Your task to perform on an android device: Do I have any events tomorrow? Image 0: 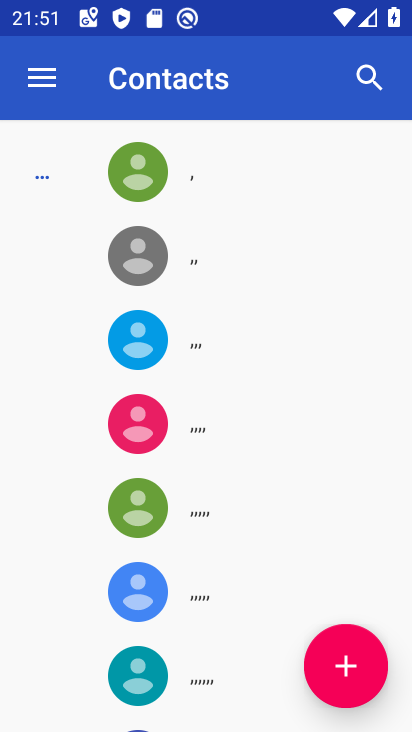
Step 0: press home button
Your task to perform on an android device: Do I have any events tomorrow? Image 1: 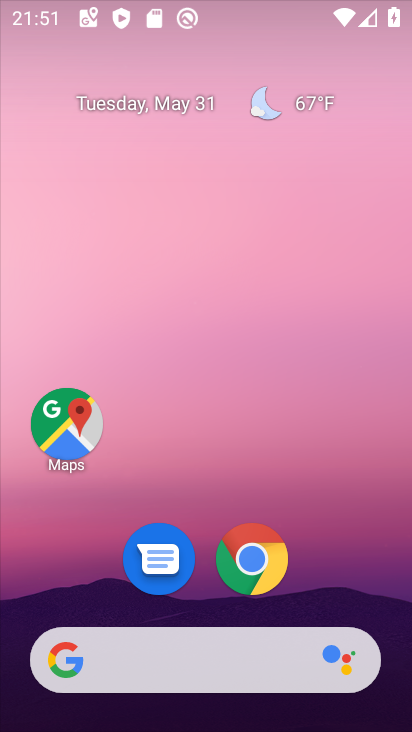
Step 1: drag from (331, 570) to (335, 114)
Your task to perform on an android device: Do I have any events tomorrow? Image 2: 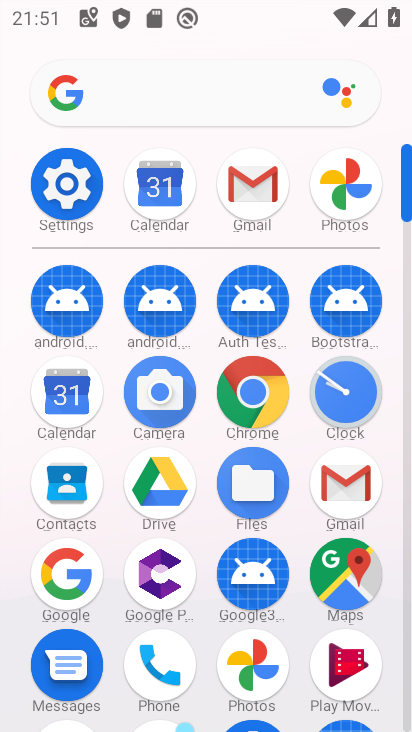
Step 2: click (65, 403)
Your task to perform on an android device: Do I have any events tomorrow? Image 3: 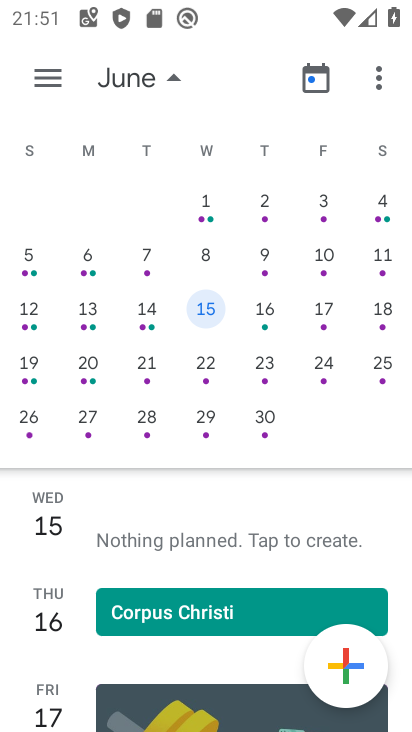
Step 3: drag from (54, 430) to (410, 421)
Your task to perform on an android device: Do I have any events tomorrow? Image 4: 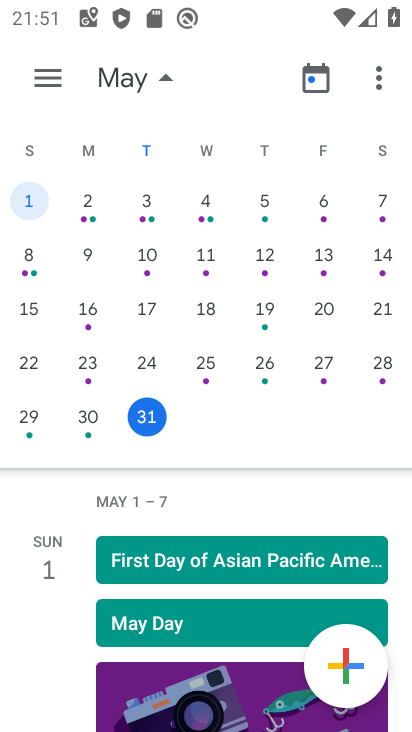
Step 4: drag from (383, 440) to (11, 375)
Your task to perform on an android device: Do I have any events tomorrow? Image 5: 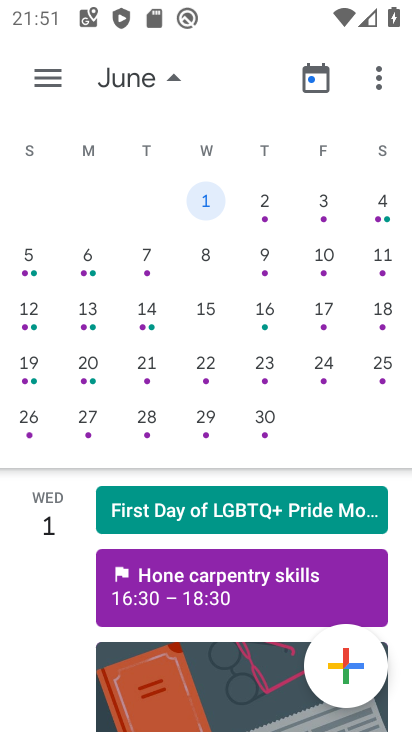
Step 5: click (204, 200)
Your task to perform on an android device: Do I have any events tomorrow? Image 6: 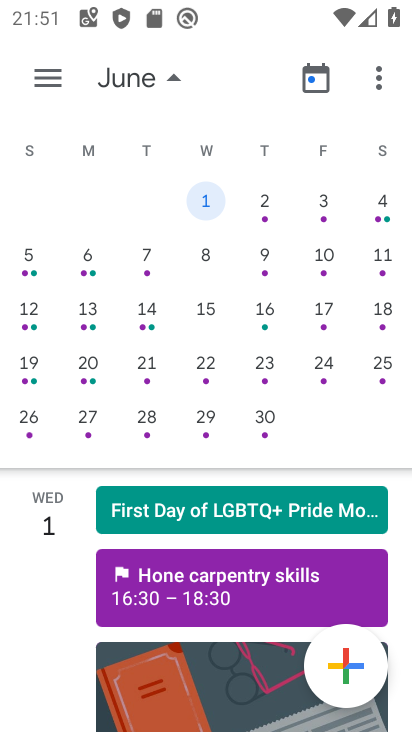
Step 6: task complete